Your task to perform on an android device: delete a single message in the gmail app Image 0: 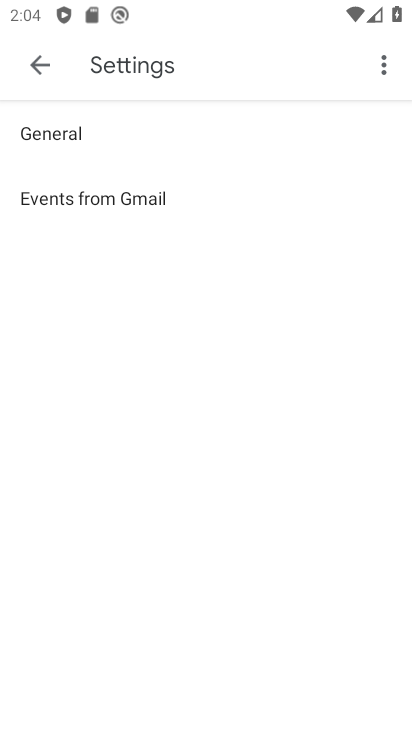
Step 0: click (412, 489)
Your task to perform on an android device: delete a single message in the gmail app Image 1: 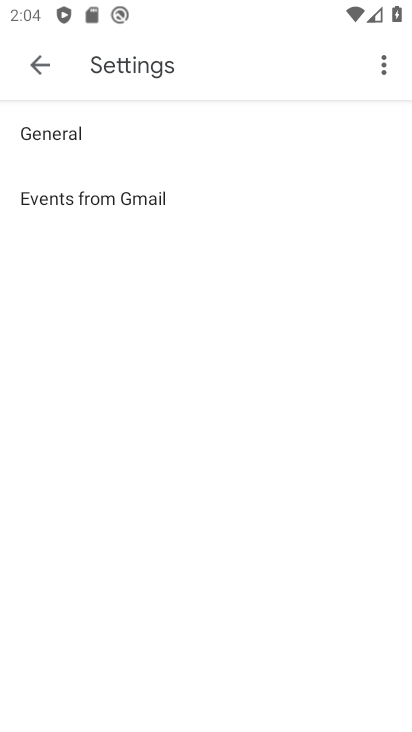
Step 1: press home button
Your task to perform on an android device: delete a single message in the gmail app Image 2: 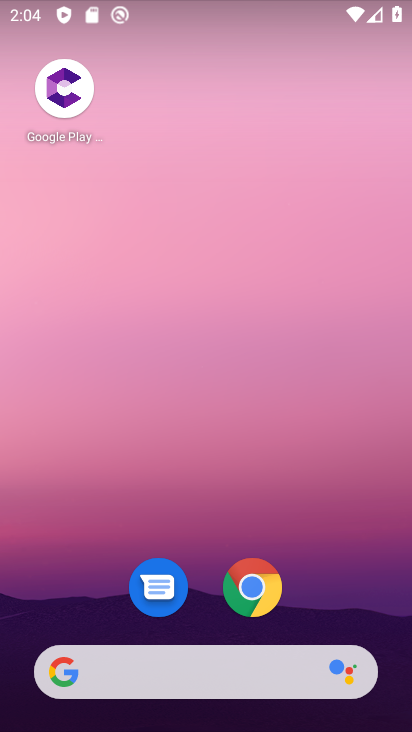
Step 2: drag from (315, 643) to (385, 197)
Your task to perform on an android device: delete a single message in the gmail app Image 3: 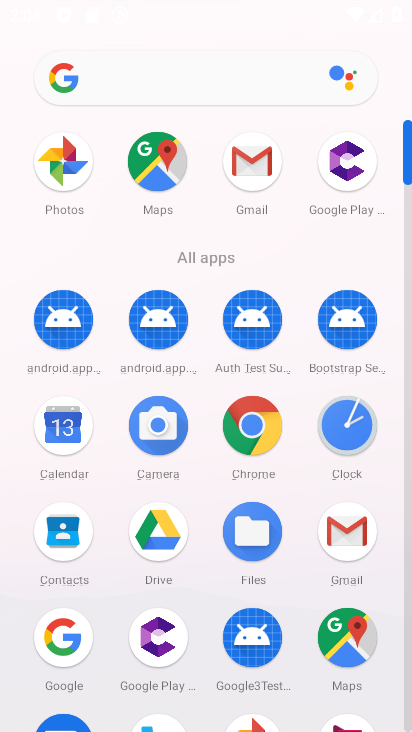
Step 3: click (237, 169)
Your task to perform on an android device: delete a single message in the gmail app Image 4: 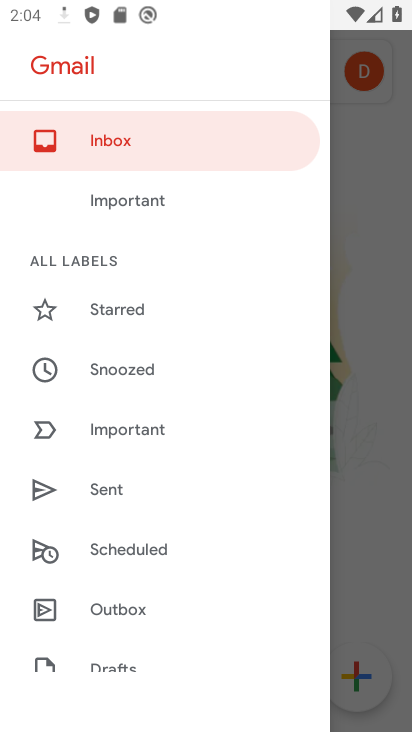
Step 4: click (237, 171)
Your task to perform on an android device: delete a single message in the gmail app Image 5: 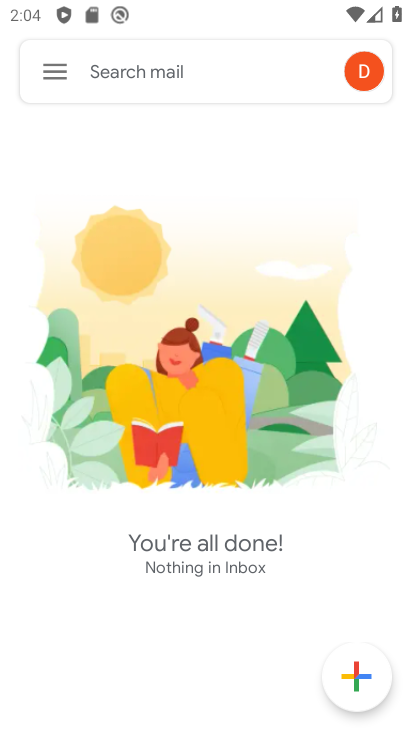
Step 5: task complete